Your task to perform on an android device: see tabs open on other devices in the chrome app Image 0: 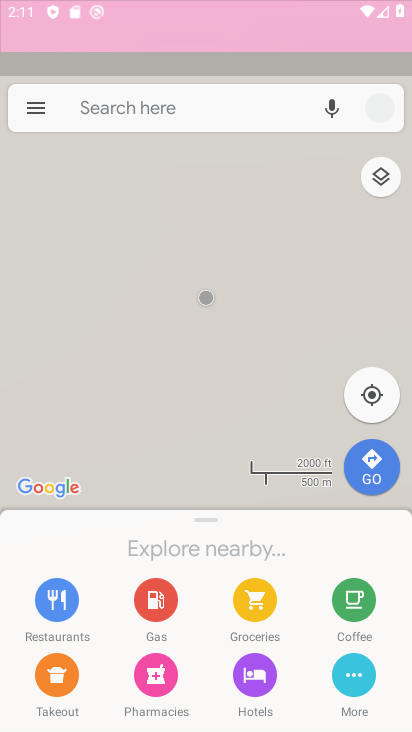
Step 0: drag from (222, 311) to (182, 121)
Your task to perform on an android device: see tabs open on other devices in the chrome app Image 1: 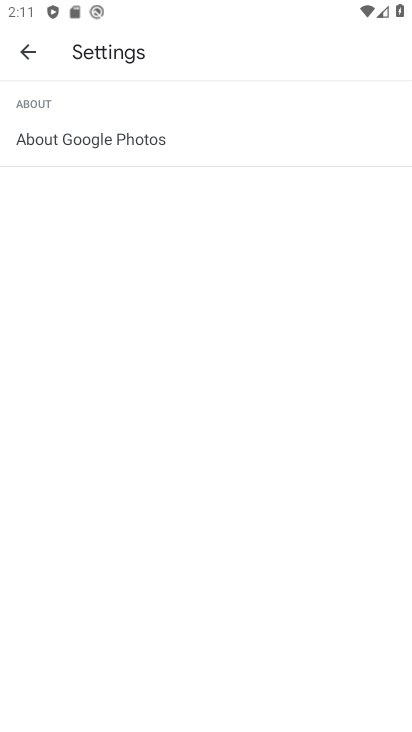
Step 1: press home button
Your task to perform on an android device: see tabs open on other devices in the chrome app Image 2: 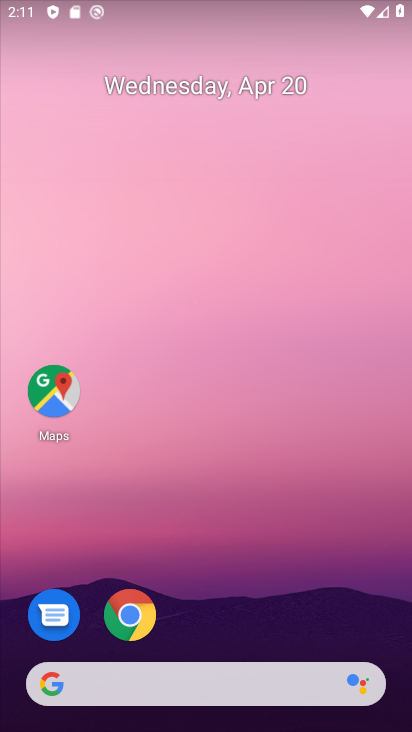
Step 2: click (130, 616)
Your task to perform on an android device: see tabs open on other devices in the chrome app Image 3: 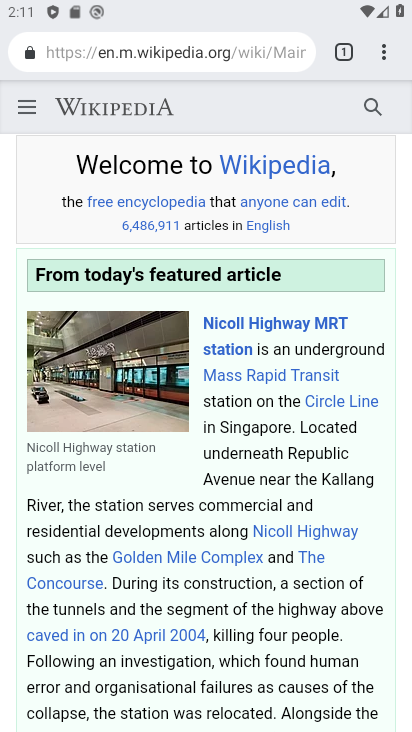
Step 3: task complete